Your task to perform on an android device: check data usage Image 0: 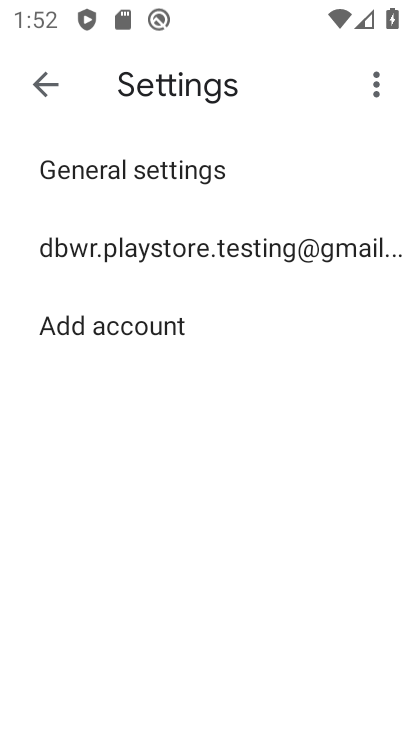
Step 0: press home button
Your task to perform on an android device: check data usage Image 1: 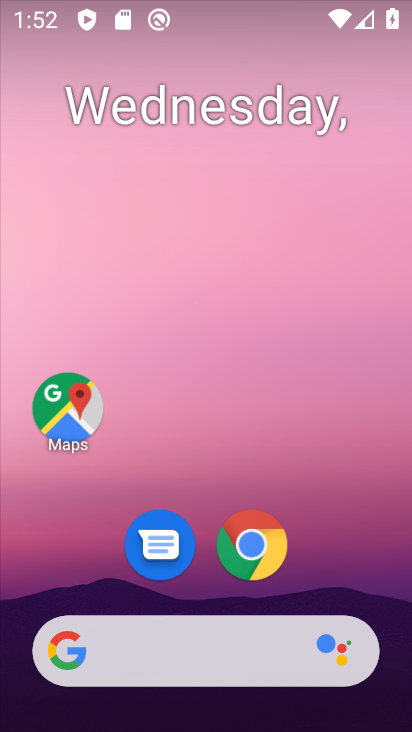
Step 1: drag from (315, 581) to (335, 193)
Your task to perform on an android device: check data usage Image 2: 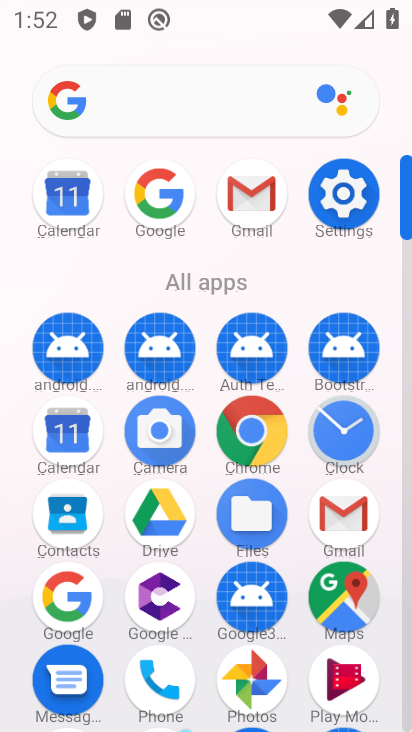
Step 2: click (331, 182)
Your task to perform on an android device: check data usage Image 3: 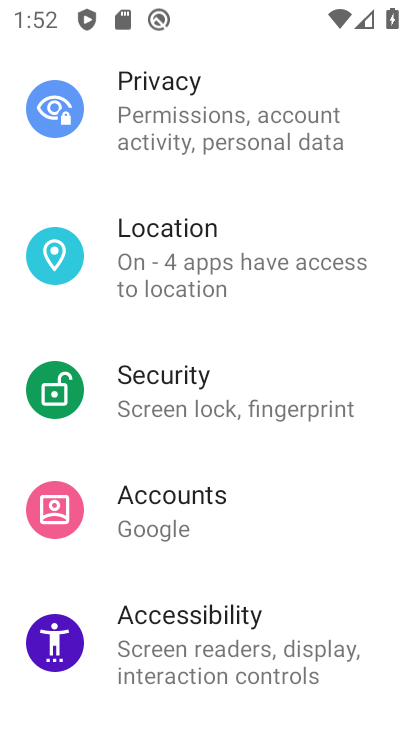
Step 3: drag from (306, 203) to (273, 604)
Your task to perform on an android device: check data usage Image 4: 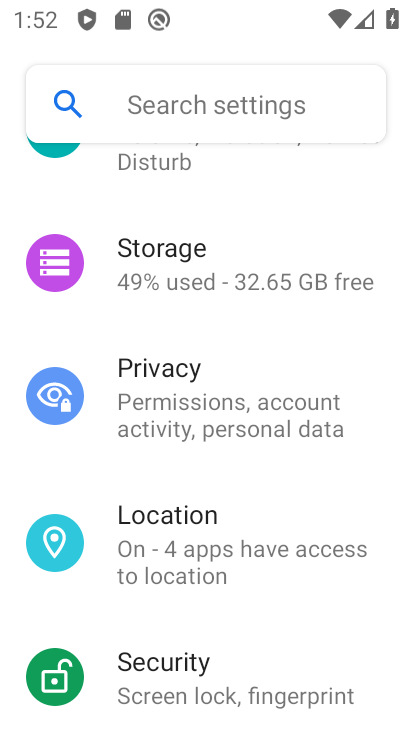
Step 4: drag from (255, 172) to (238, 524)
Your task to perform on an android device: check data usage Image 5: 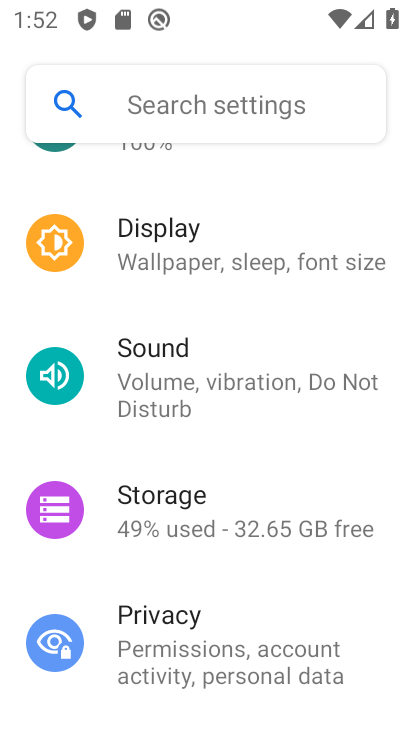
Step 5: drag from (277, 180) to (266, 555)
Your task to perform on an android device: check data usage Image 6: 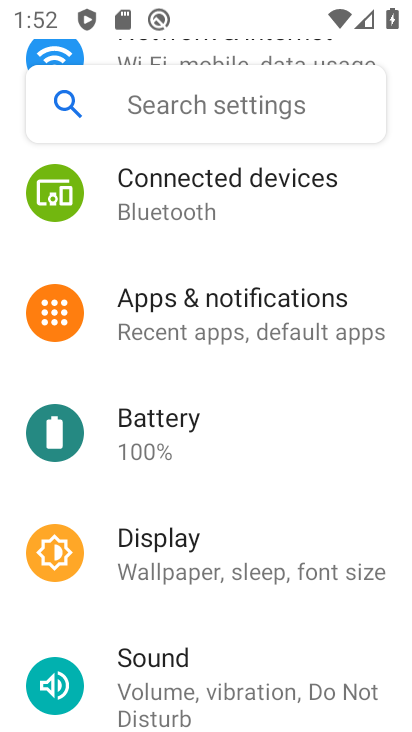
Step 6: drag from (313, 195) to (284, 508)
Your task to perform on an android device: check data usage Image 7: 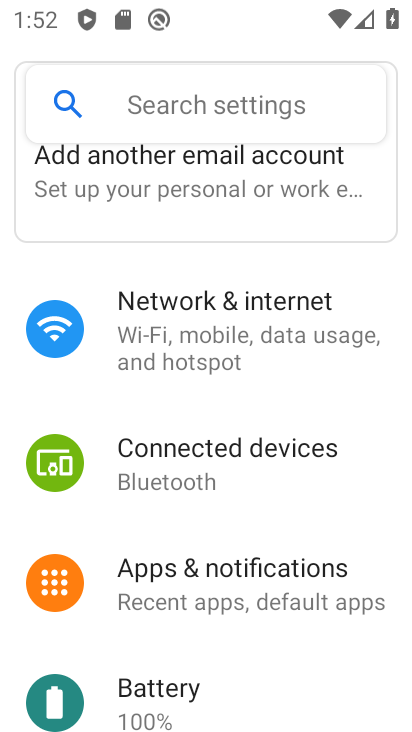
Step 7: click (272, 348)
Your task to perform on an android device: check data usage Image 8: 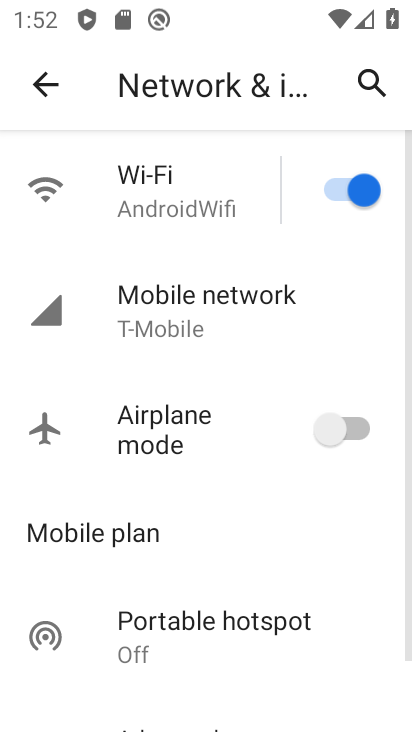
Step 8: click (239, 336)
Your task to perform on an android device: check data usage Image 9: 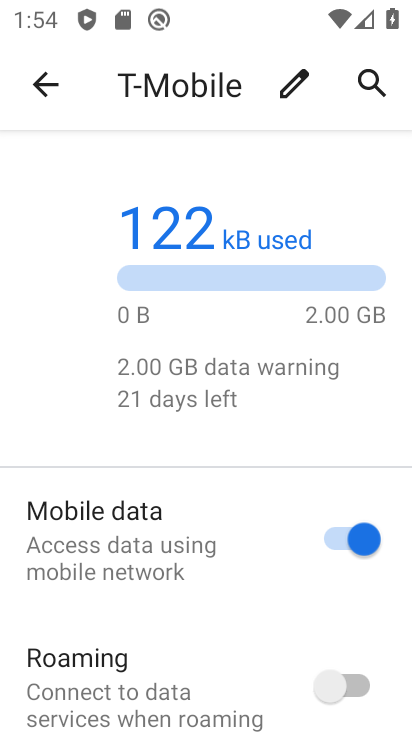
Step 9: drag from (180, 604) to (251, 98)
Your task to perform on an android device: check data usage Image 10: 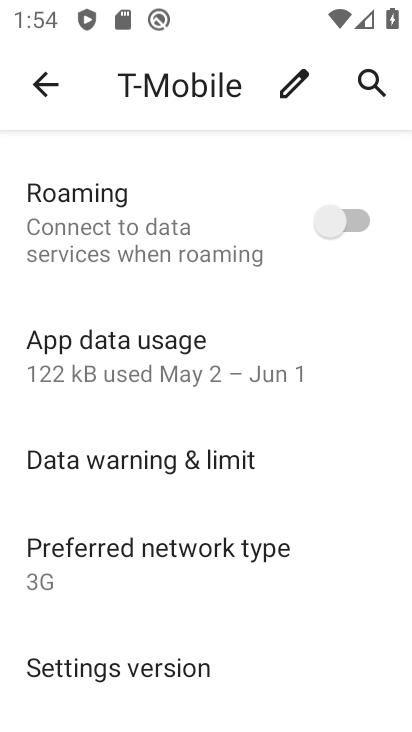
Step 10: drag from (216, 615) to (288, 247)
Your task to perform on an android device: check data usage Image 11: 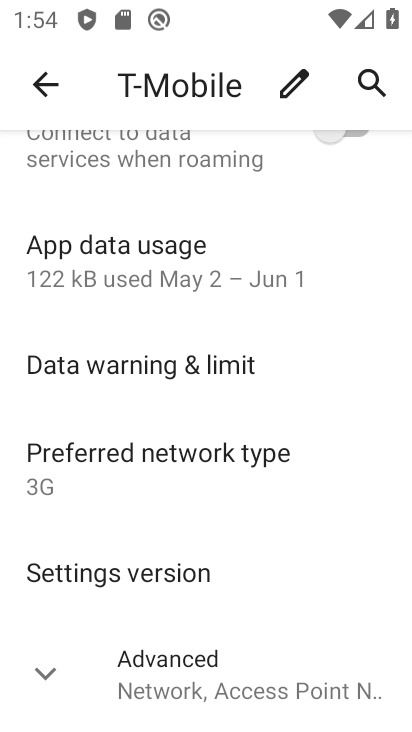
Step 11: click (241, 273)
Your task to perform on an android device: check data usage Image 12: 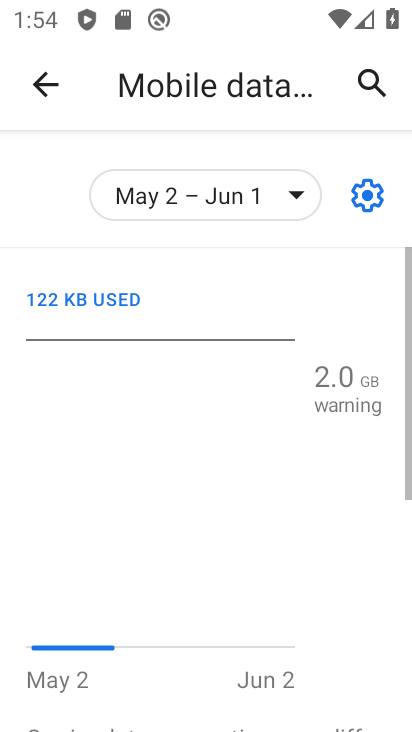
Step 12: task complete